Your task to perform on an android device: turn on improve location accuracy Image 0: 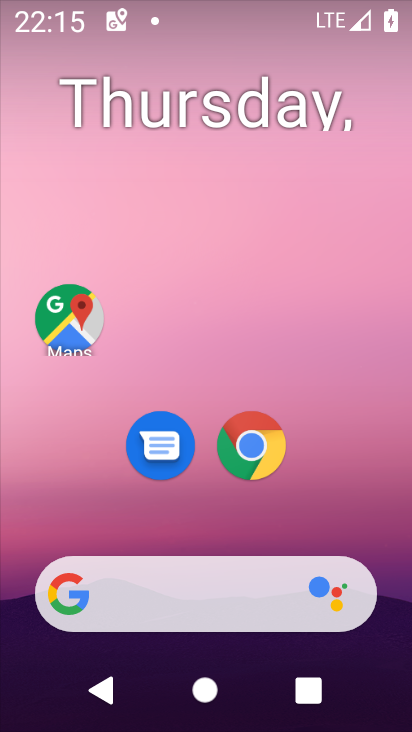
Step 0: drag from (239, 516) to (232, 216)
Your task to perform on an android device: turn on improve location accuracy Image 1: 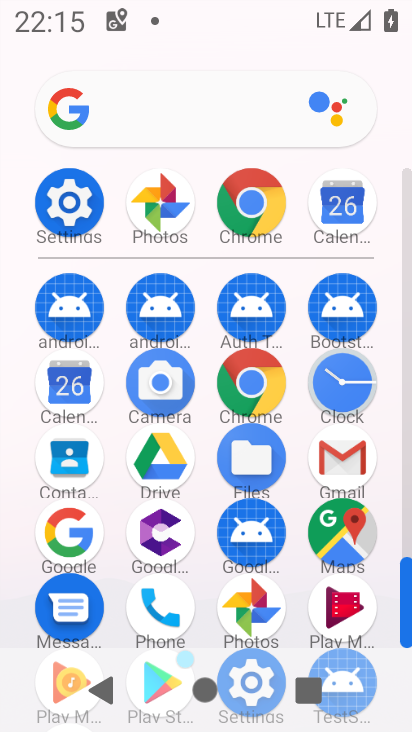
Step 1: drag from (219, 278) to (203, 126)
Your task to perform on an android device: turn on improve location accuracy Image 2: 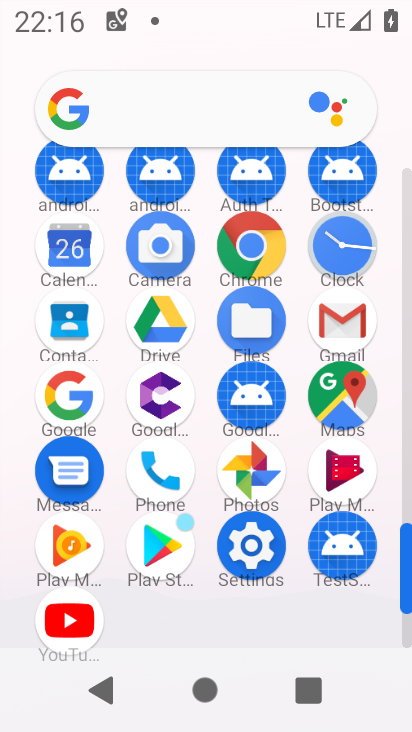
Step 2: click (263, 556)
Your task to perform on an android device: turn on improve location accuracy Image 3: 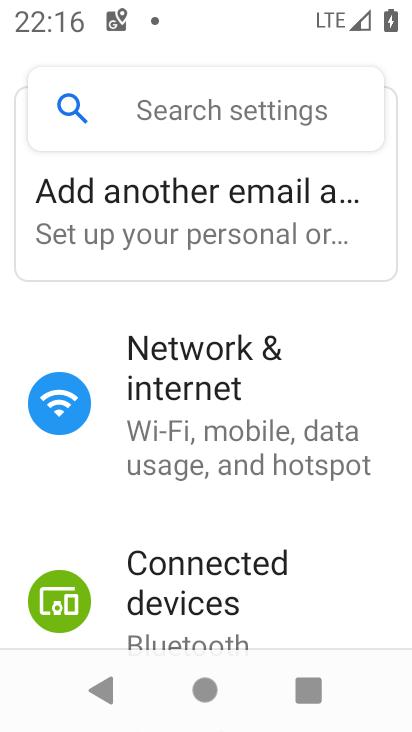
Step 3: drag from (205, 514) to (264, 211)
Your task to perform on an android device: turn on improve location accuracy Image 4: 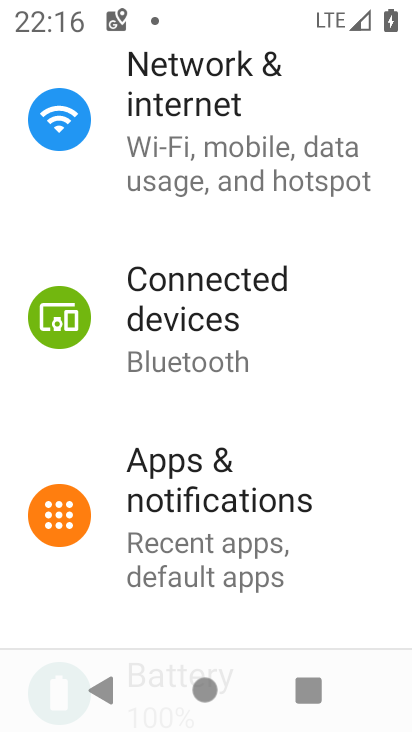
Step 4: drag from (175, 581) to (244, 206)
Your task to perform on an android device: turn on improve location accuracy Image 5: 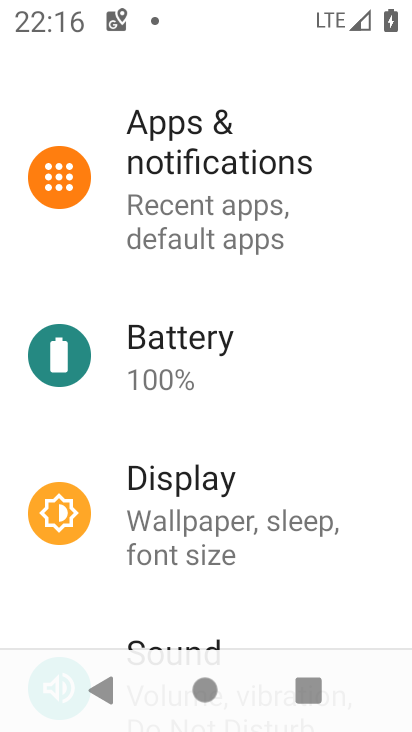
Step 5: drag from (210, 592) to (236, 216)
Your task to perform on an android device: turn on improve location accuracy Image 6: 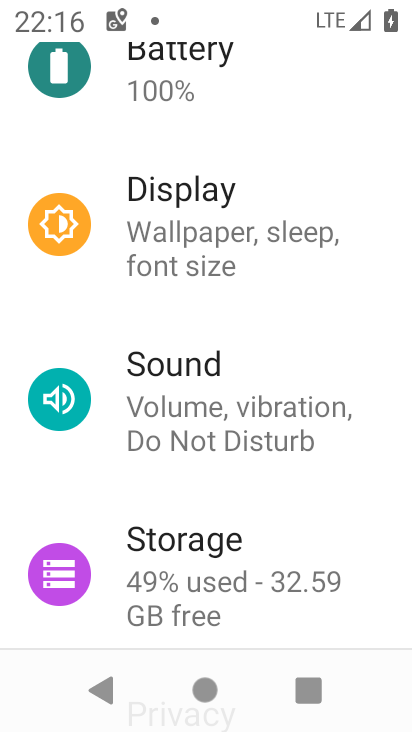
Step 6: drag from (226, 515) to (286, 250)
Your task to perform on an android device: turn on improve location accuracy Image 7: 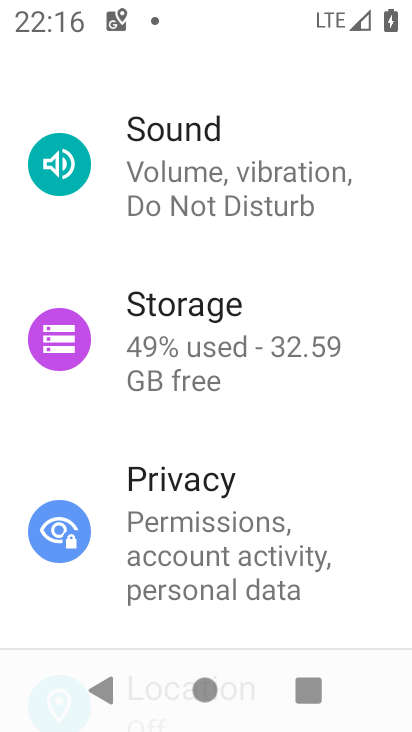
Step 7: drag from (214, 562) to (243, 230)
Your task to perform on an android device: turn on improve location accuracy Image 8: 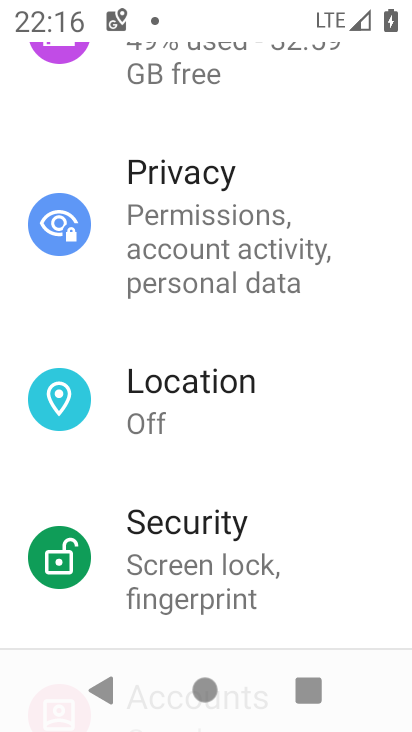
Step 8: click (188, 411)
Your task to perform on an android device: turn on improve location accuracy Image 9: 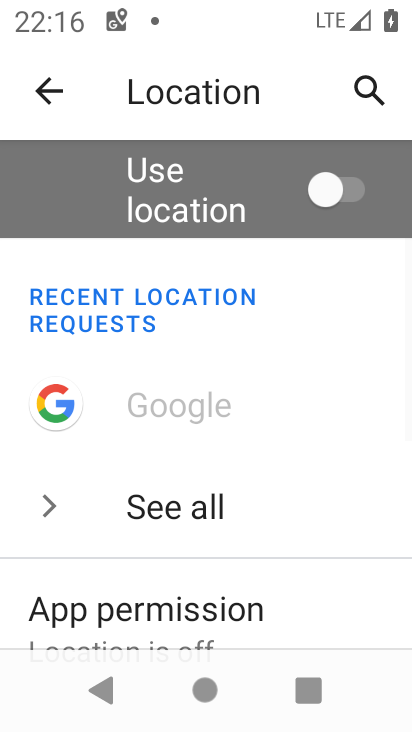
Step 9: click (331, 186)
Your task to perform on an android device: turn on improve location accuracy Image 10: 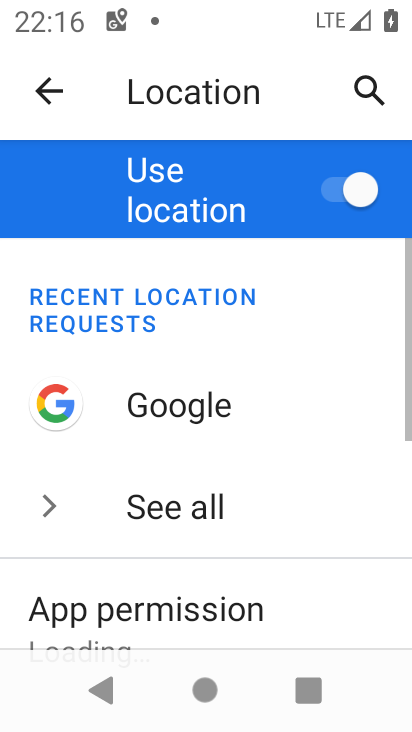
Step 10: task complete